Your task to perform on an android device: Go to privacy settings Image 0: 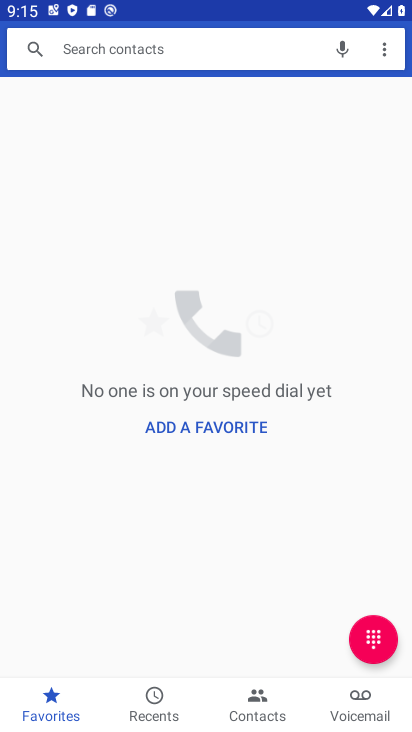
Step 0: press home button
Your task to perform on an android device: Go to privacy settings Image 1: 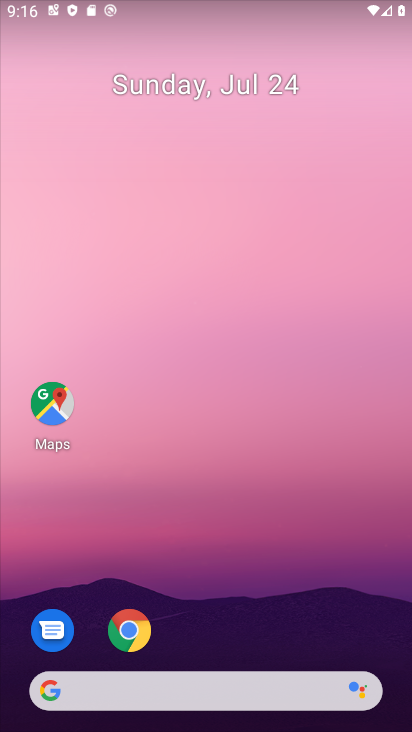
Step 1: drag from (231, 653) to (215, 47)
Your task to perform on an android device: Go to privacy settings Image 2: 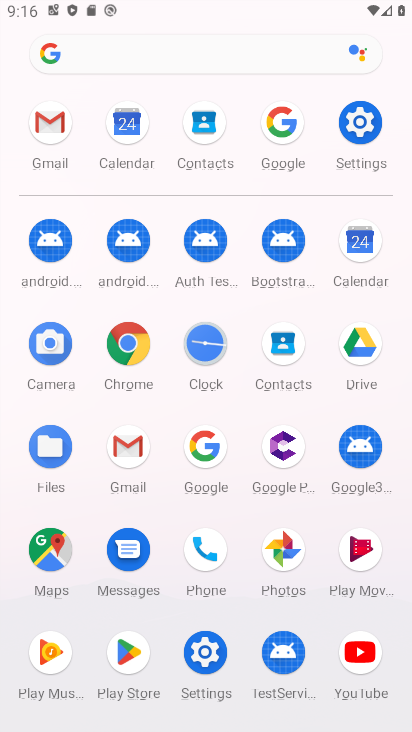
Step 2: click (367, 118)
Your task to perform on an android device: Go to privacy settings Image 3: 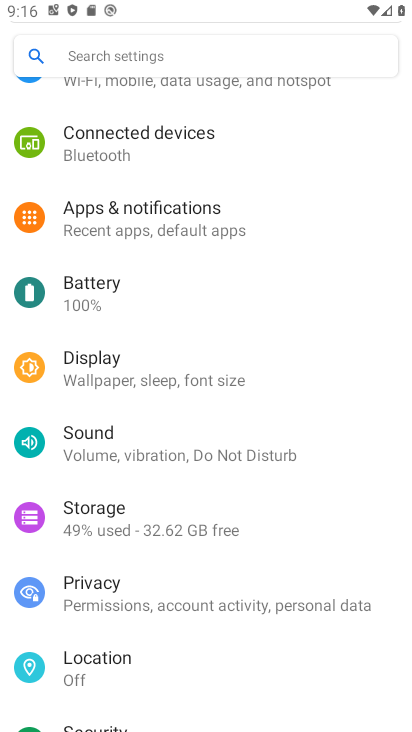
Step 3: click (111, 599)
Your task to perform on an android device: Go to privacy settings Image 4: 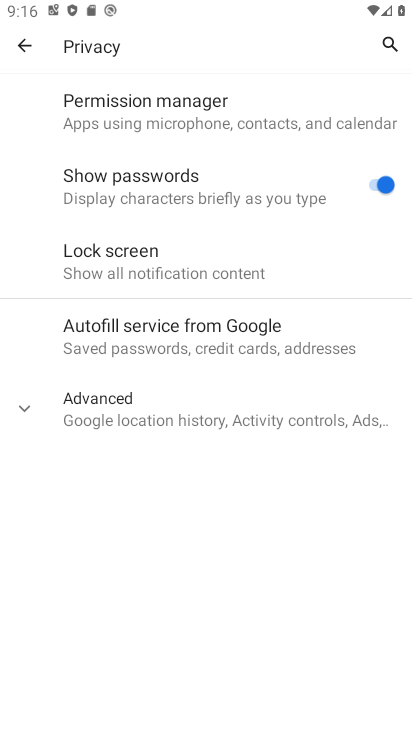
Step 4: task complete